Your task to perform on an android device: choose inbox layout in the gmail app Image 0: 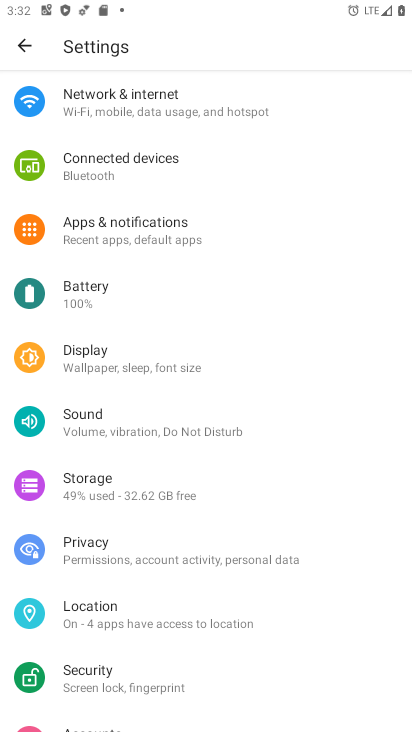
Step 0: press home button
Your task to perform on an android device: choose inbox layout in the gmail app Image 1: 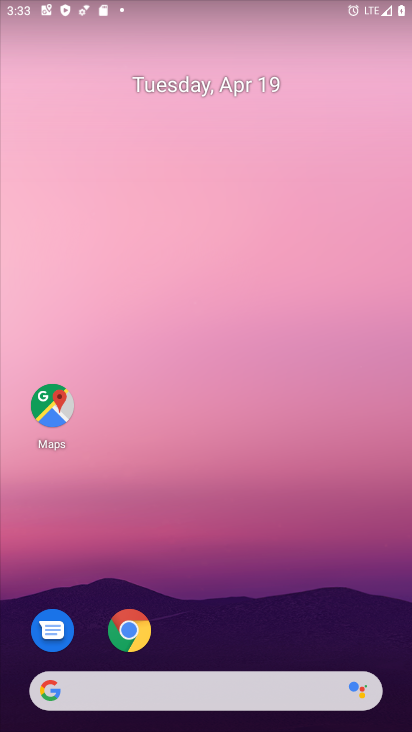
Step 1: drag from (230, 726) to (208, 61)
Your task to perform on an android device: choose inbox layout in the gmail app Image 2: 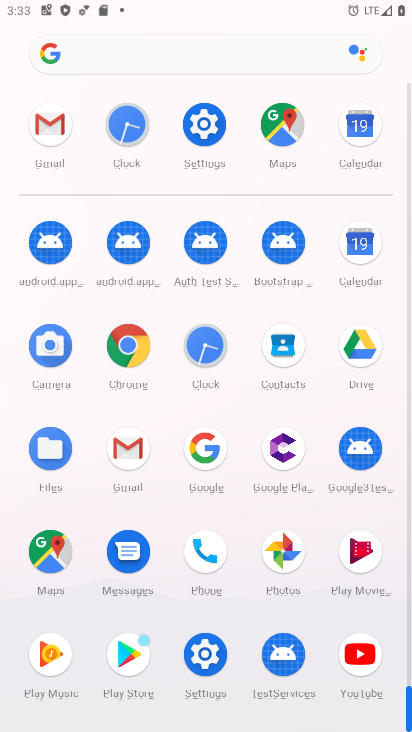
Step 2: click (44, 127)
Your task to perform on an android device: choose inbox layout in the gmail app Image 3: 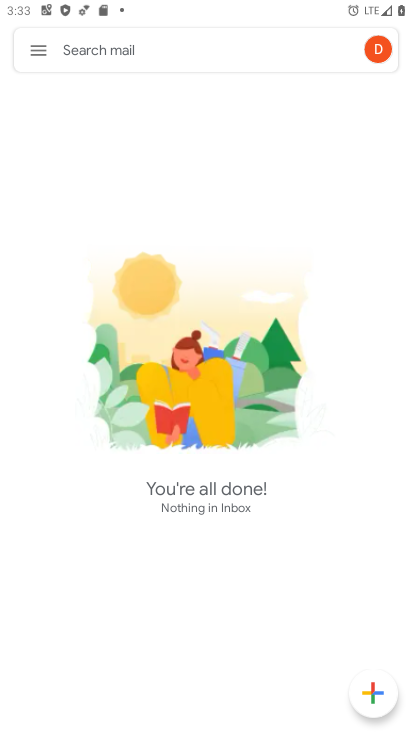
Step 3: click (34, 53)
Your task to perform on an android device: choose inbox layout in the gmail app Image 4: 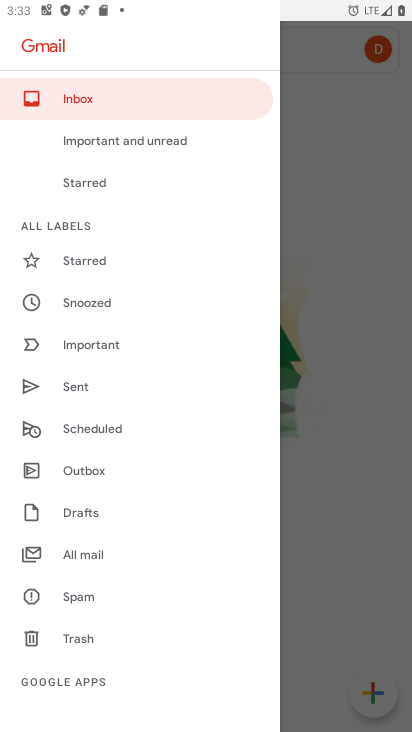
Step 4: drag from (87, 662) to (105, 216)
Your task to perform on an android device: choose inbox layout in the gmail app Image 5: 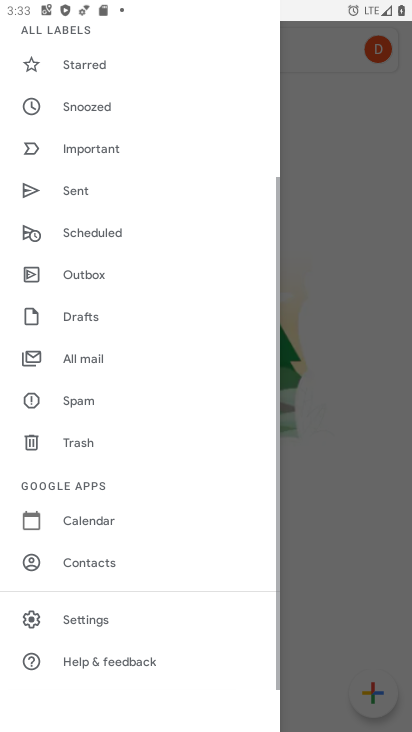
Step 5: click (83, 615)
Your task to perform on an android device: choose inbox layout in the gmail app Image 6: 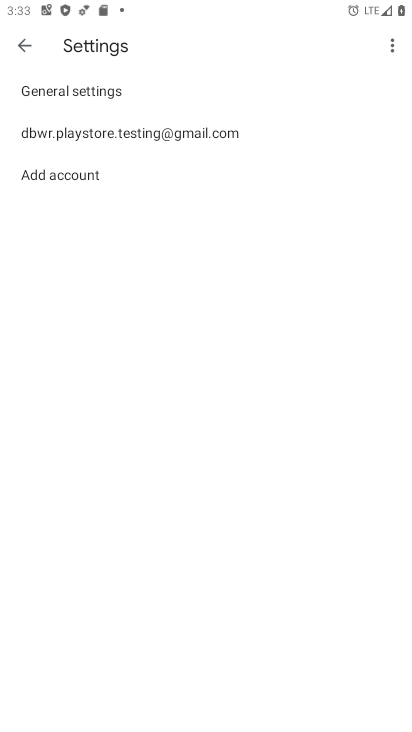
Step 6: click (140, 129)
Your task to perform on an android device: choose inbox layout in the gmail app Image 7: 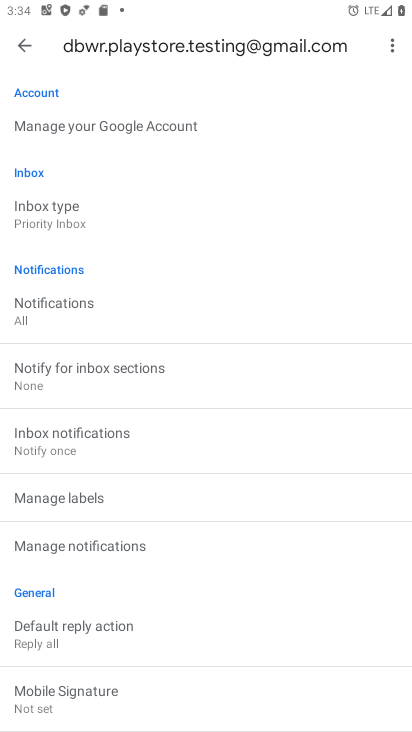
Step 7: click (50, 215)
Your task to perform on an android device: choose inbox layout in the gmail app Image 8: 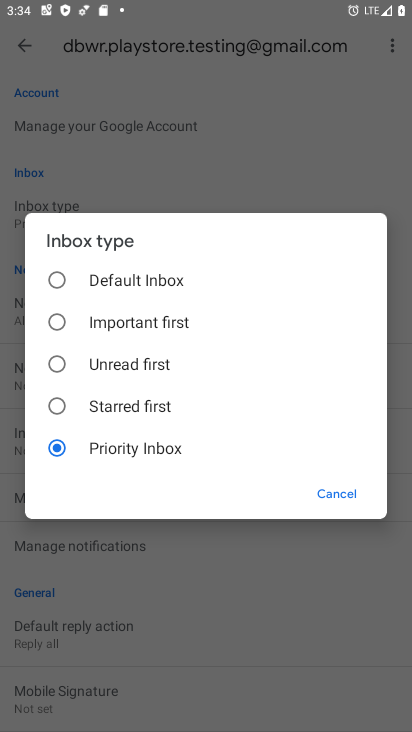
Step 8: click (57, 280)
Your task to perform on an android device: choose inbox layout in the gmail app Image 9: 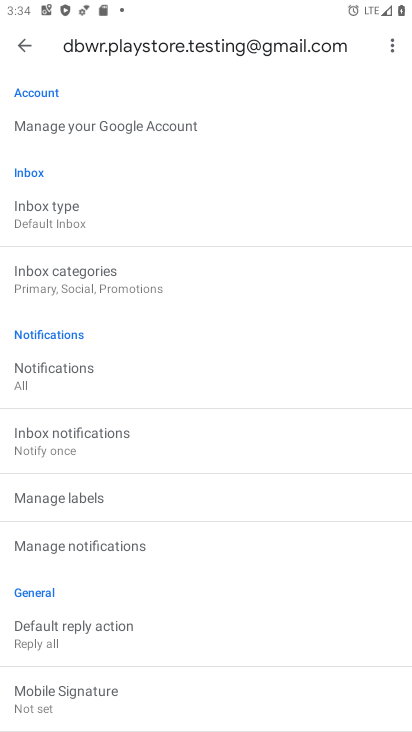
Step 9: task complete